Your task to perform on an android device: open app "McDonald's" Image 0: 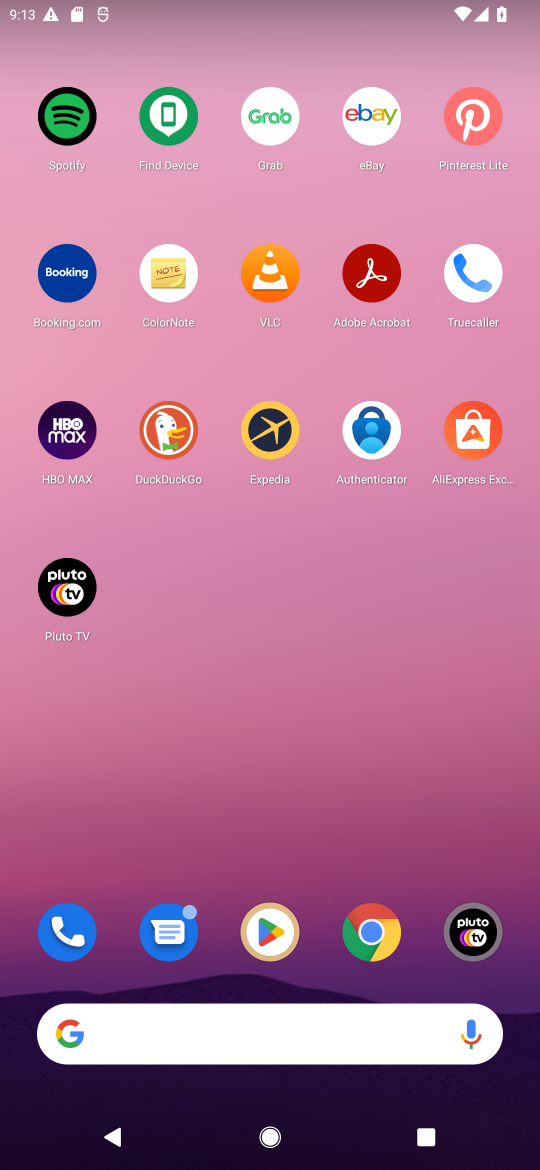
Step 0: click (279, 945)
Your task to perform on an android device: open app "McDonald's" Image 1: 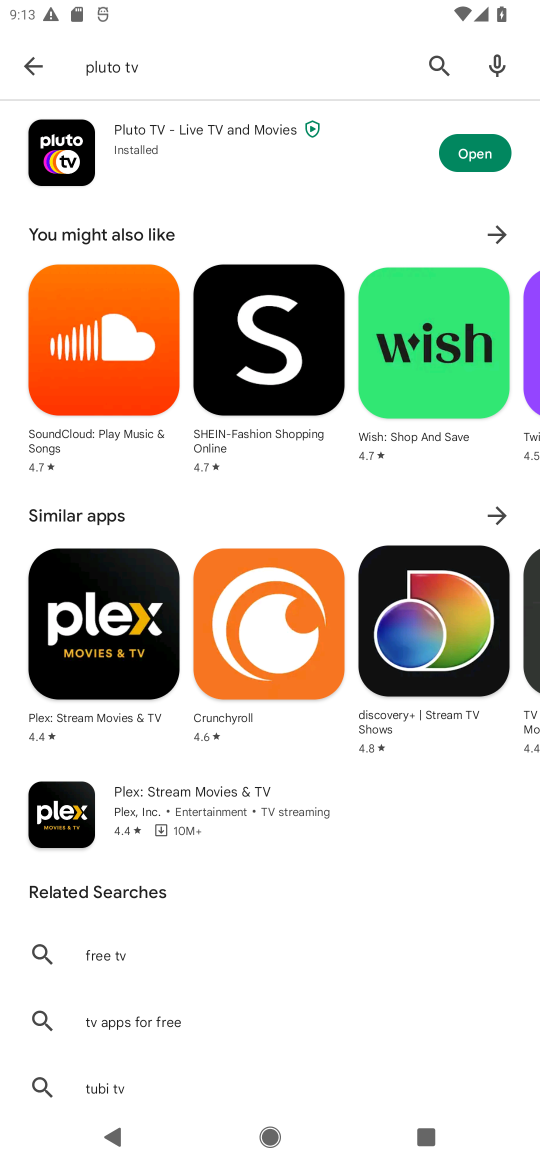
Step 1: click (454, 76)
Your task to perform on an android device: open app "McDonald's" Image 2: 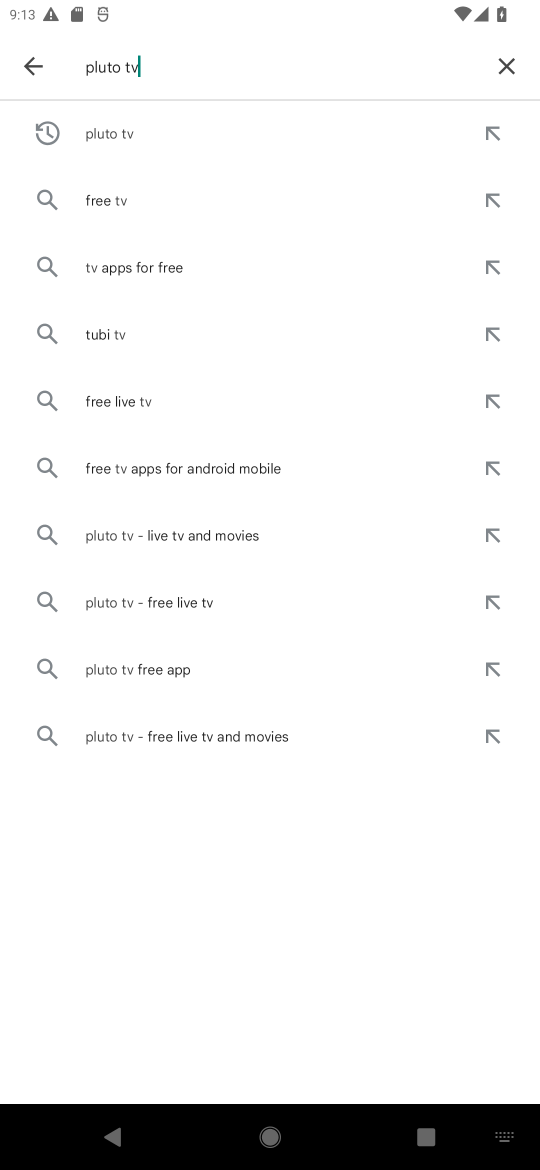
Step 2: click (508, 74)
Your task to perform on an android device: open app "McDonald's" Image 3: 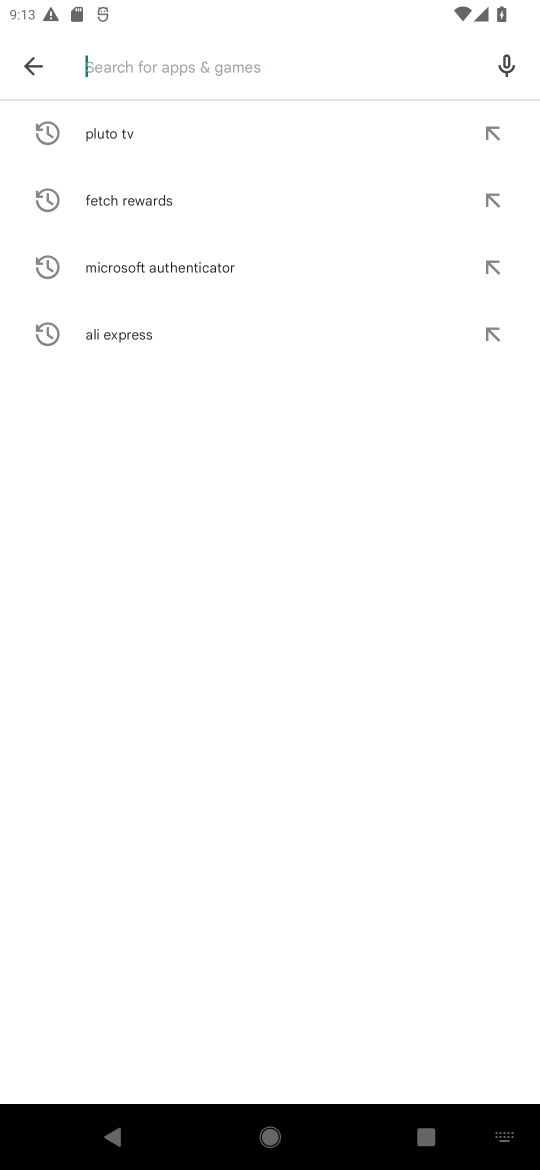
Step 3: type "mcdoland"
Your task to perform on an android device: open app "McDonald's" Image 4: 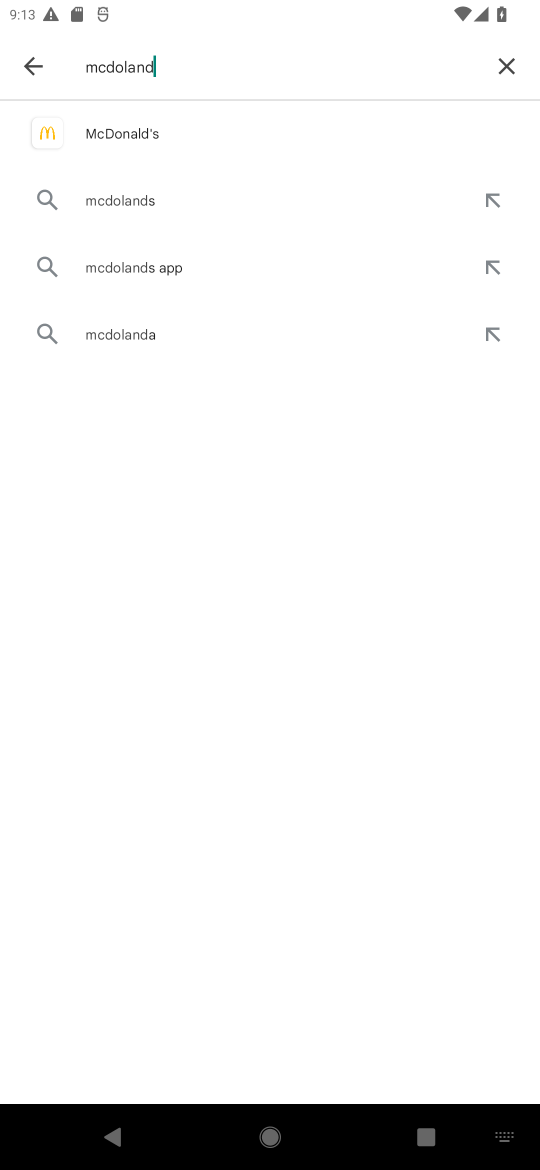
Step 4: click (273, 140)
Your task to perform on an android device: open app "McDonald's" Image 5: 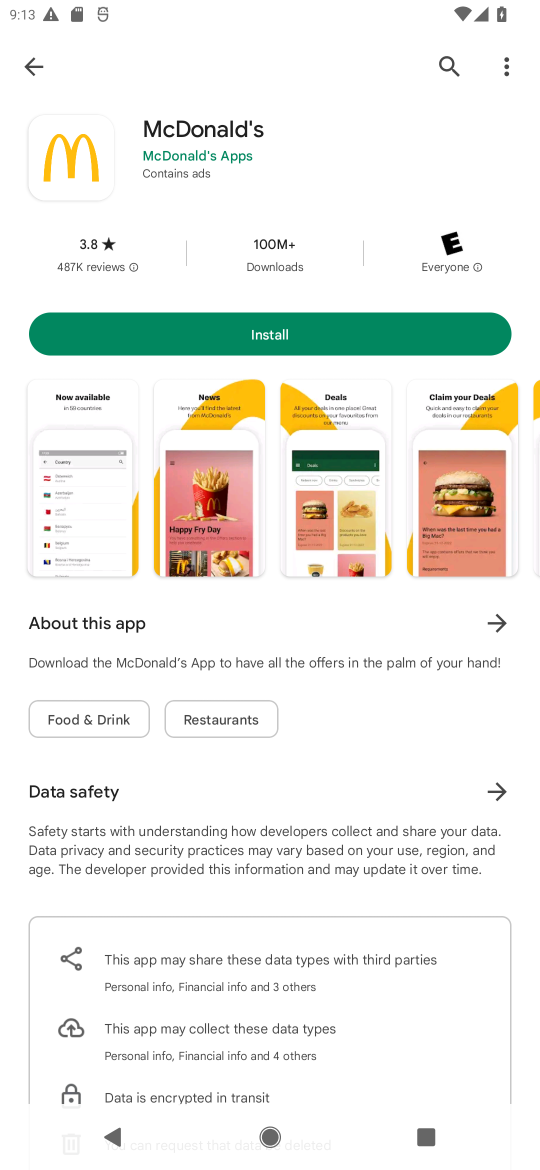
Step 5: click (304, 319)
Your task to perform on an android device: open app "McDonald's" Image 6: 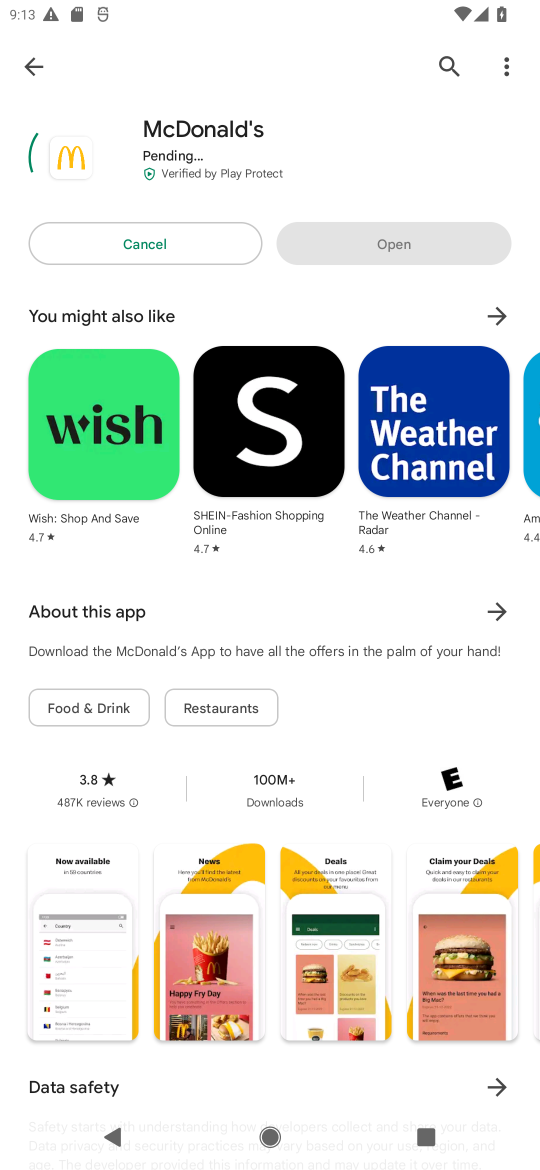
Step 6: task complete